Your task to perform on an android device: toggle location history Image 0: 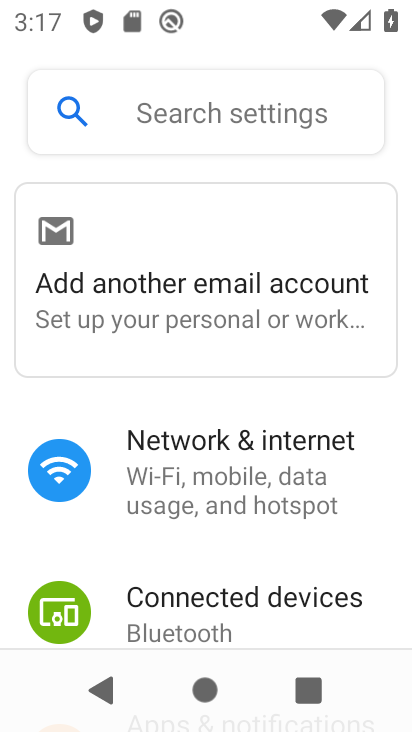
Step 0: drag from (213, 619) to (341, 160)
Your task to perform on an android device: toggle location history Image 1: 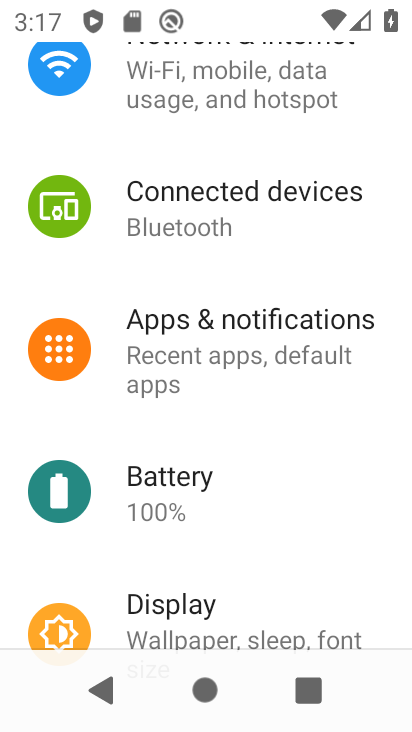
Step 1: drag from (268, 518) to (338, 180)
Your task to perform on an android device: toggle location history Image 2: 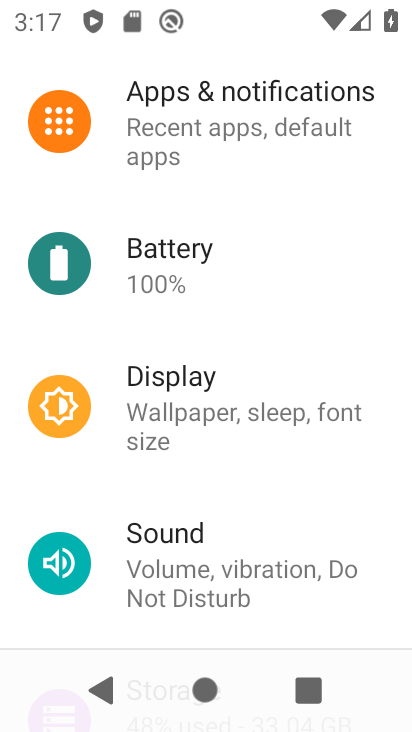
Step 2: drag from (186, 615) to (336, 117)
Your task to perform on an android device: toggle location history Image 3: 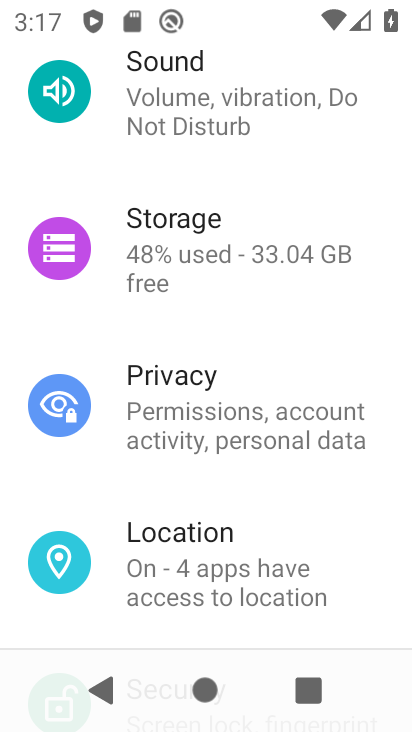
Step 3: click (209, 589)
Your task to perform on an android device: toggle location history Image 4: 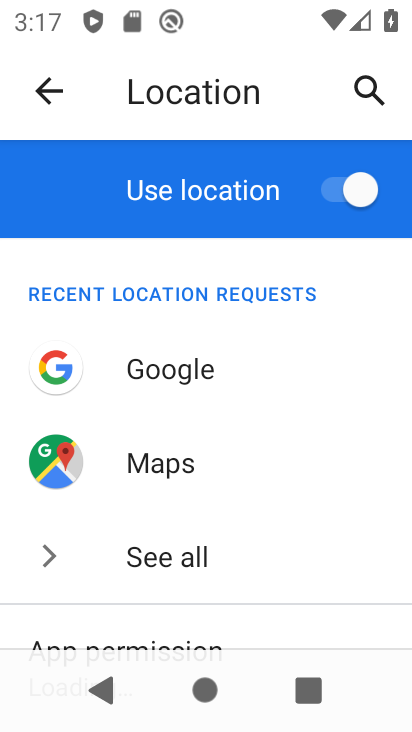
Step 4: drag from (191, 579) to (321, 86)
Your task to perform on an android device: toggle location history Image 5: 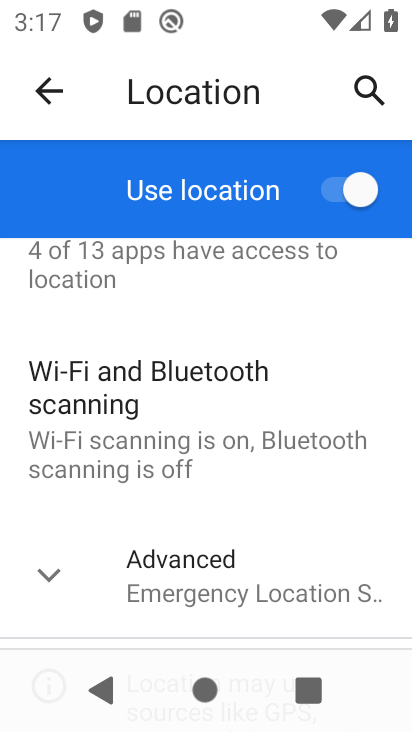
Step 5: drag from (217, 601) to (346, 132)
Your task to perform on an android device: toggle location history Image 6: 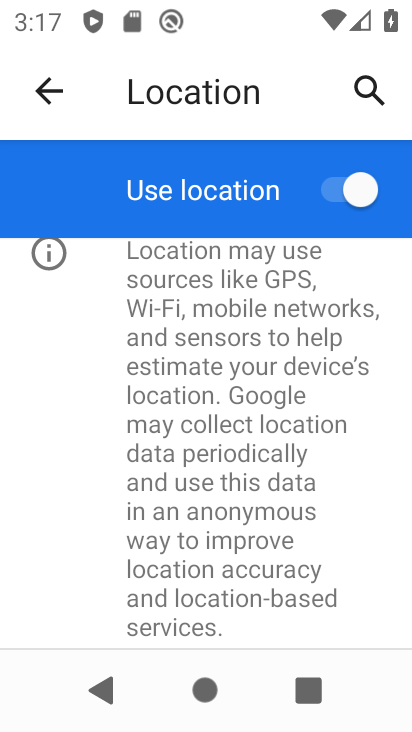
Step 6: drag from (228, 318) to (226, 639)
Your task to perform on an android device: toggle location history Image 7: 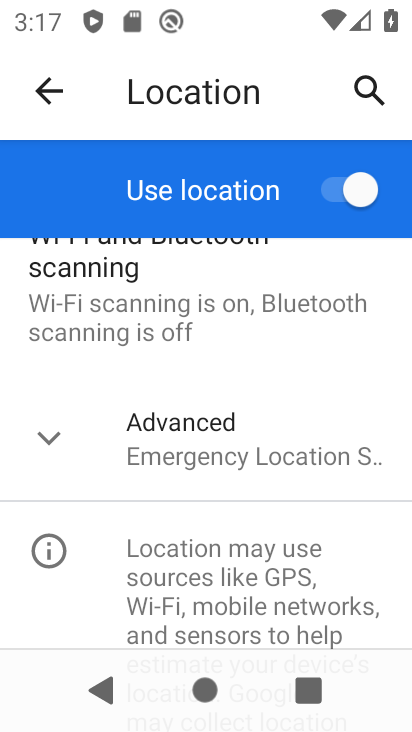
Step 7: click (230, 449)
Your task to perform on an android device: toggle location history Image 8: 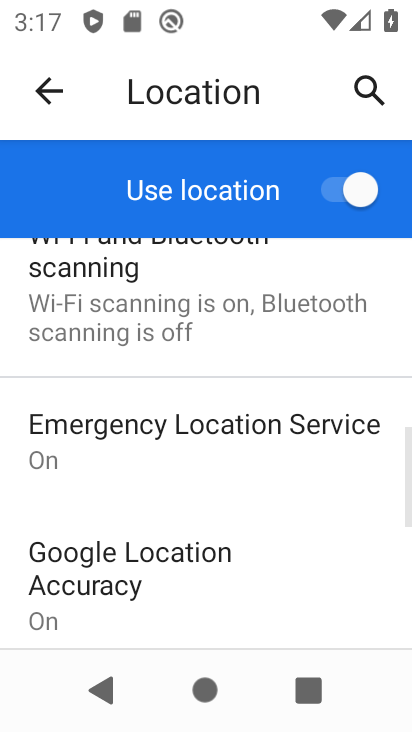
Step 8: drag from (164, 584) to (321, 215)
Your task to perform on an android device: toggle location history Image 9: 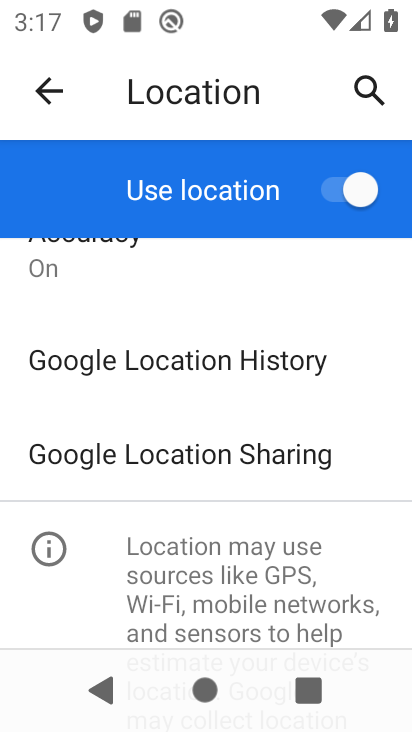
Step 9: click (170, 377)
Your task to perform on an android device: toggle location history Image 10: 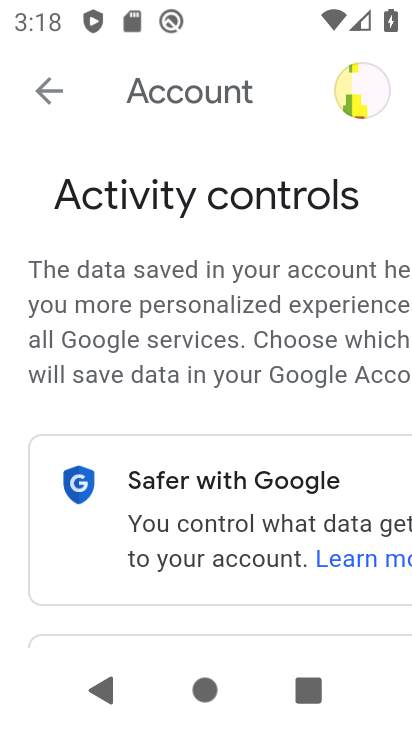
Step 10: drag from (219, 567) to (318, 98)
Your task to perform on an android device: toggle location history Image 11: 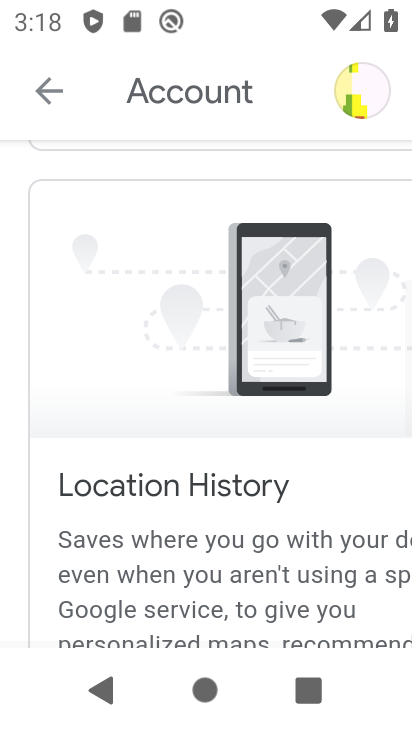
Step 11: drag from (221, 603) to (172, 245)
Your task to perform on an android device: toggle location history Image 12: 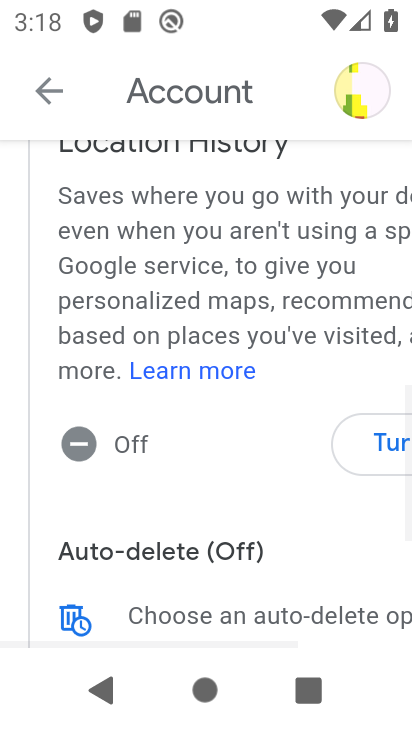
Step 12: drag from (256, 452) to (81, 354)
Your task to perform on an android device: toggle location history Image 13: 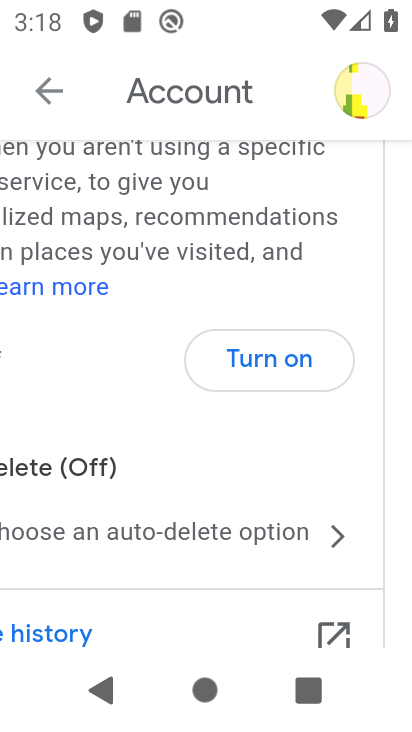
Step 13: click (256, 365)
Your task to perform on an android device: toggle location history Image 14: 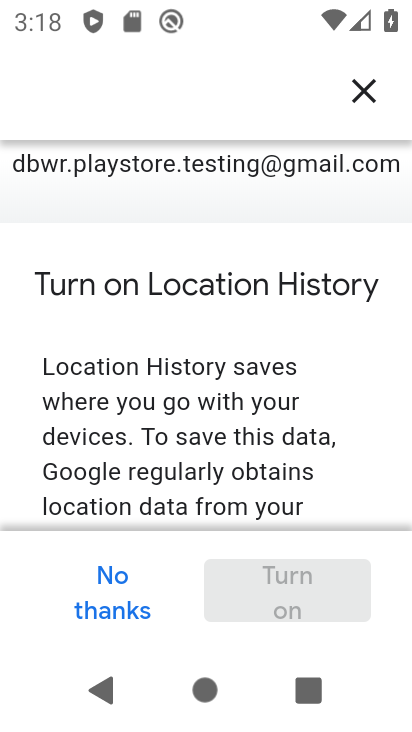
Step 14: drag from (208, 442) to (283, 76)
Your task to perform on an android device: toggle location history Image 15: 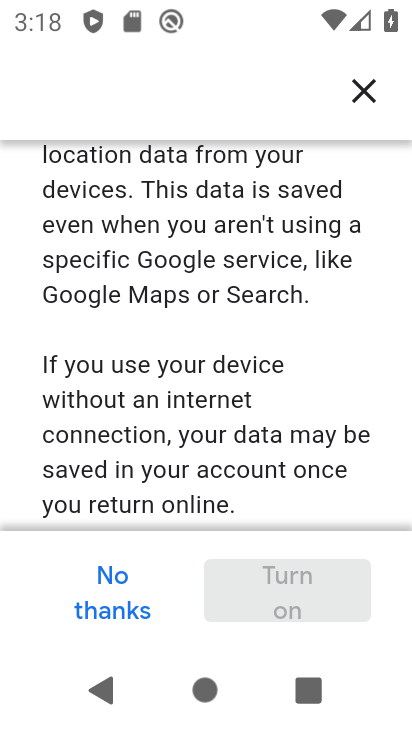
Step 15: drag from (248, 523) to (330, 50)
Your task to perform on an android device: toggle location history Image 16: 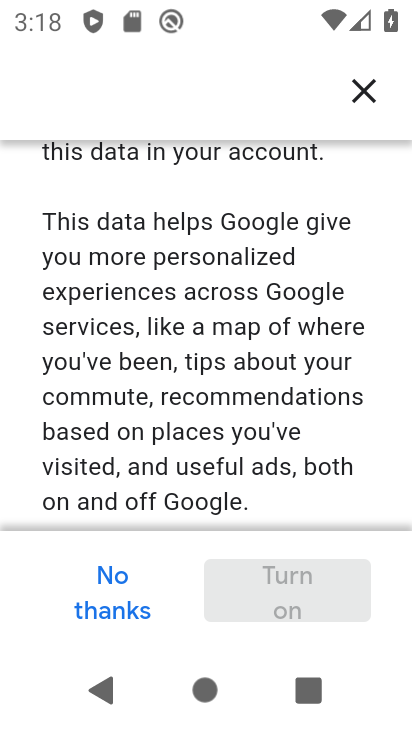
Step 16: drag from (236, 436) to (290, 16)
Your task to perform on an android device: toggle location history Image 17: 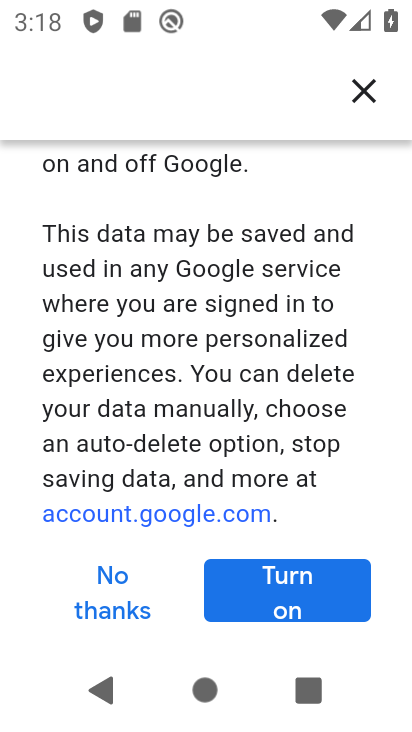
Step 17: drag from (231, 402) to (297, 68)
Your task to perform on an android device: toggle location history Image 18: 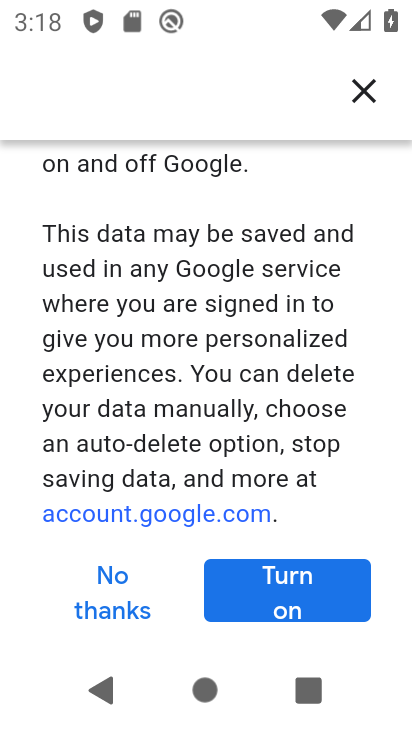
Step 18: click (276, 597)
Your task to perform on an android device: toggle location history Image 19: 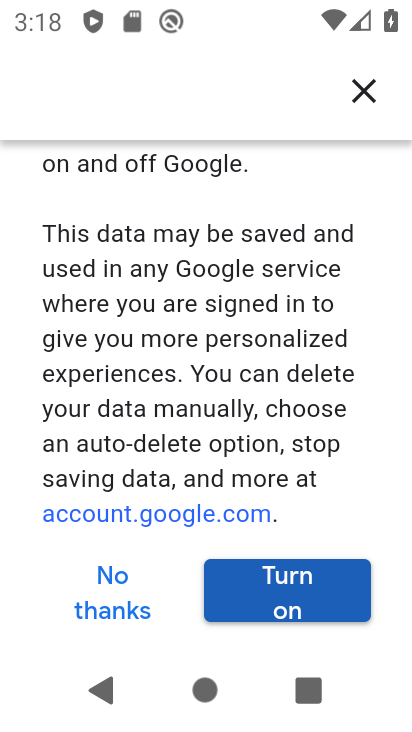
Step 19: drag from (227, 499) to (321, 93)
Your task to perform on an android device: toggle location history Image 20: 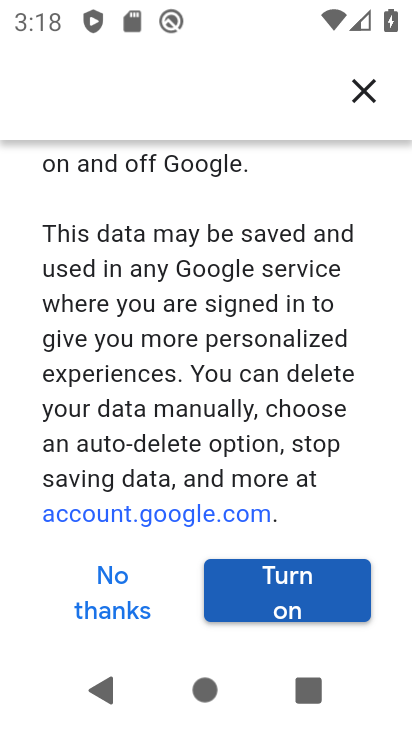
Step 20: click (272, 592)
Your task to perform on an android device: toggle location history Image 21: 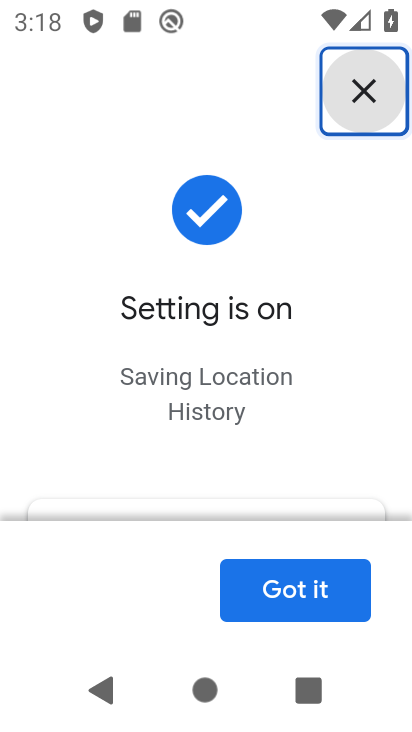
Step 21: task complete